Your task to perform on an android device: Go to Maps Image 0: 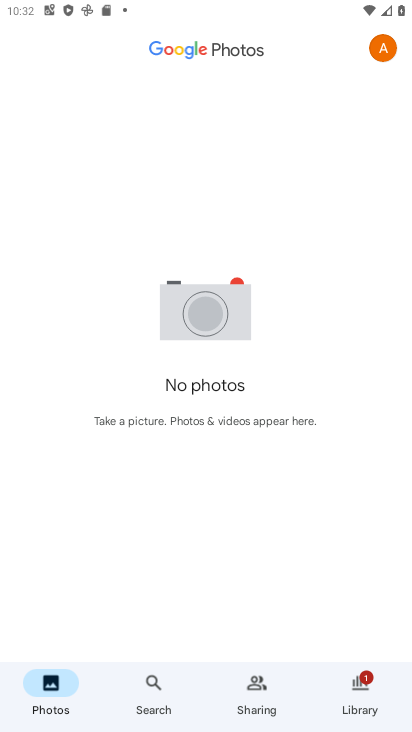
Step 0: press home button
Your task to perform on an android device: Go to Maps Image 1: 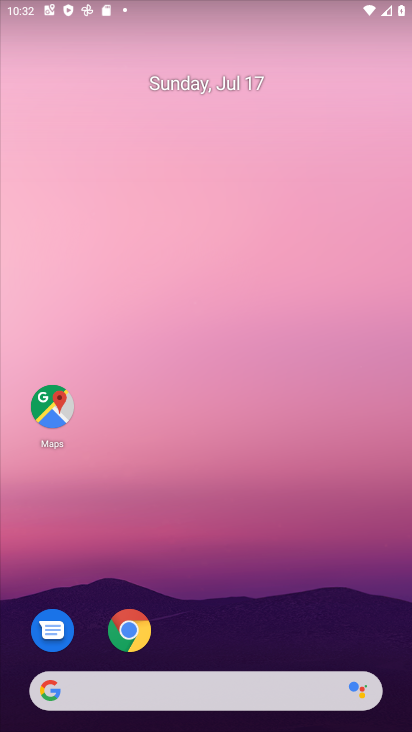
Step 1: drag from (218, 638) to (267, 152)
Your task to perform on an android device: Go to Maps Image 2: 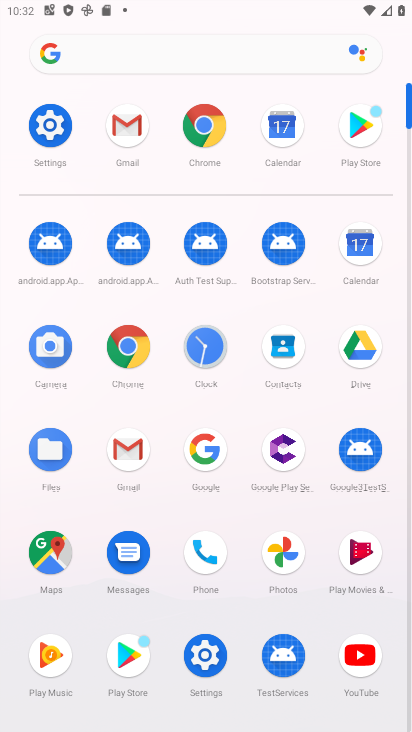
Step 2: click (59, 575)
Your task to perform on an android device: Go to Maps Image 3: 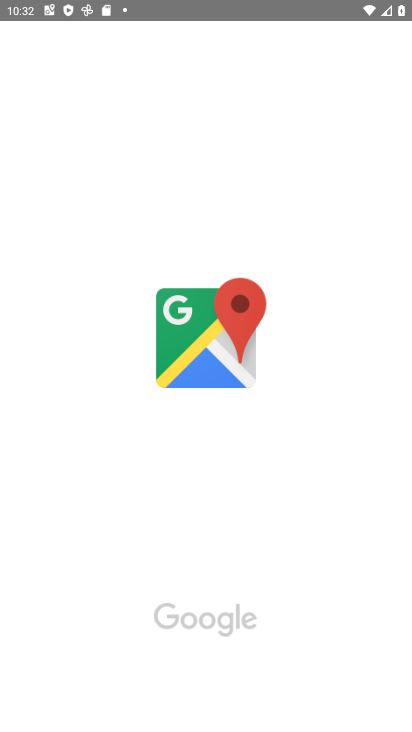
Step 3: task complete